Your task to perform on an android device: turn on the 24-hour format for clock Image 0: 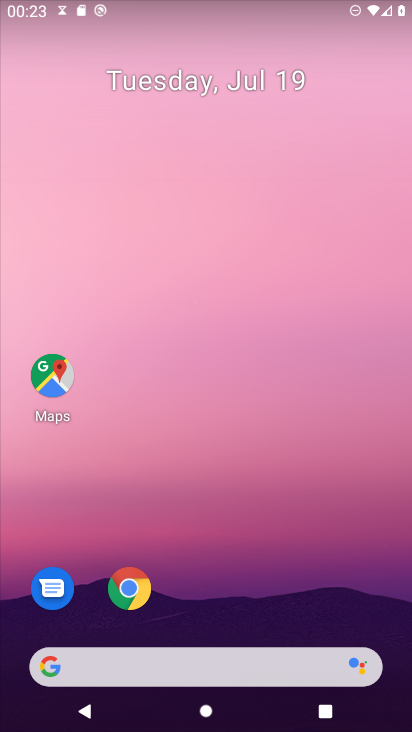
Step 0: press home button
Your task to perform on an android device: turn on the 24-hour format for clock Image 1: 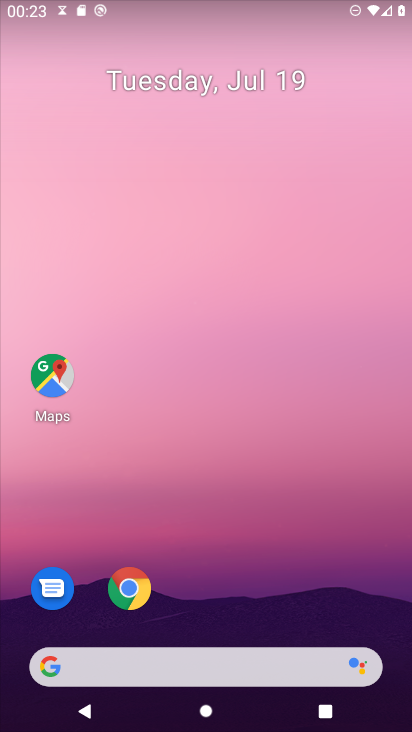
Step 1: drag from (309, 596) to (285, 25)
Your task to perform on an android device: turn on the 24-hour format for clock Image 2: 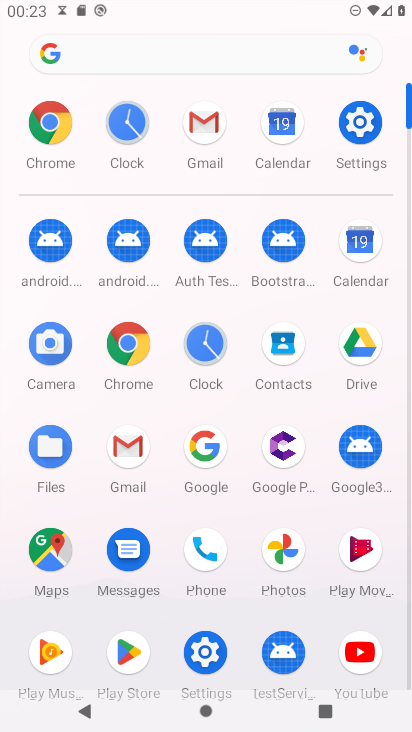
Step 2: click (211, 344)
Your task to perform on an android device: turn on the 24-hour format for clock Image 3: 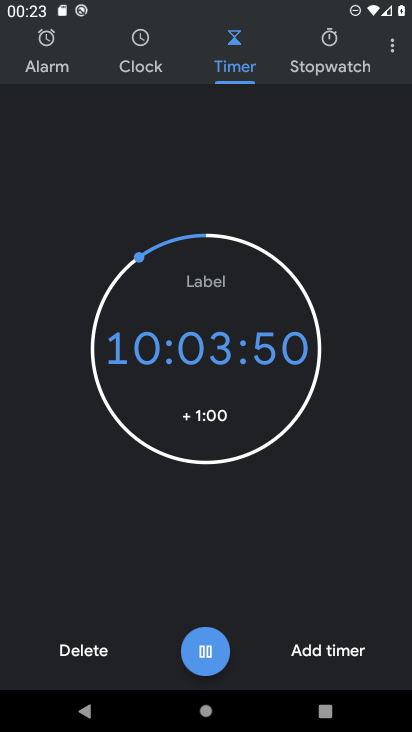
Step 3: click (393, 45)
Your task to perform on an android device: turn on the 24-hour format for clock Image 4: 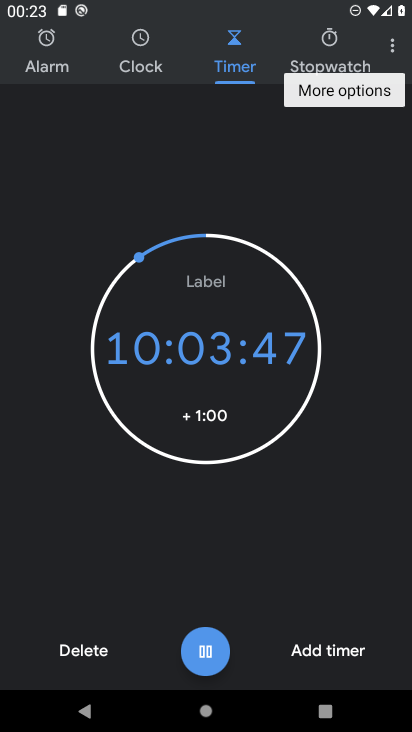
Step 4: click (382, 49)
Your task to perform on an android device: turn on the 24-hour format for clock Image 5: 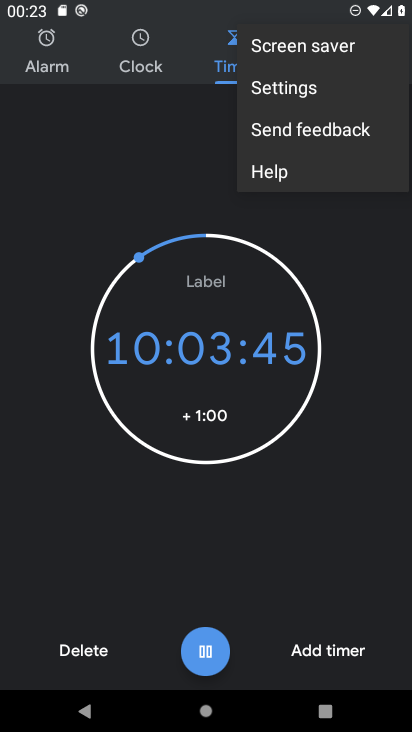
Step 5: click (295, 95)
Your task to perform on an android device: turn on the 24-hour format for clock Image 6: 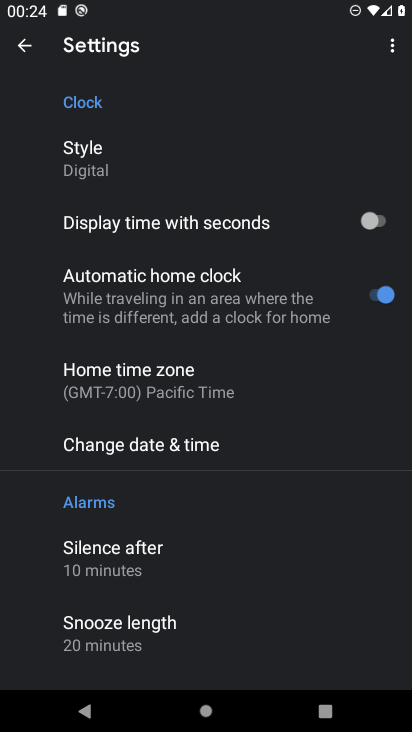
Step 6: click (106, 445)
Your task to perform on an android device: turn on the 24-hour format for clock Image 7: 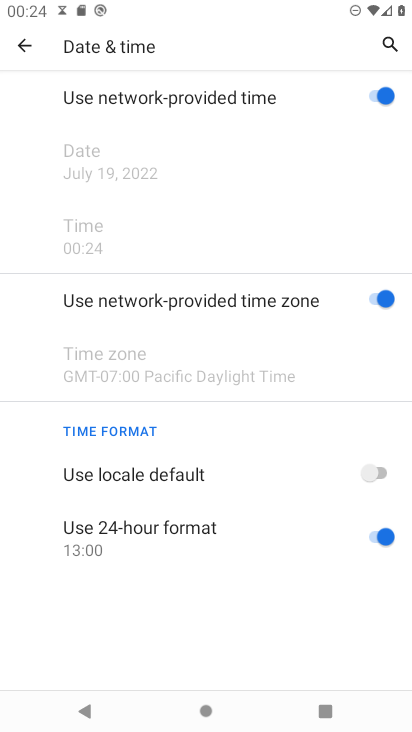
Step 7: task complete